Your task to perform on an android device: allow cookies in the chrome app Image 0: 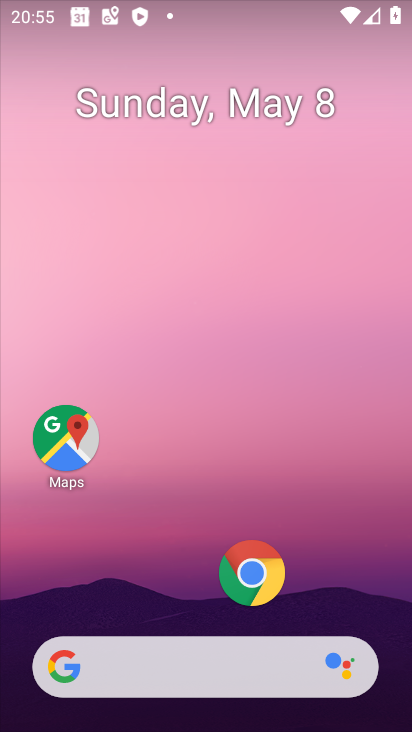
Step 0: click (248, 577)
Your task to perform on an android device: allow cookies in the chrome app Image 1: 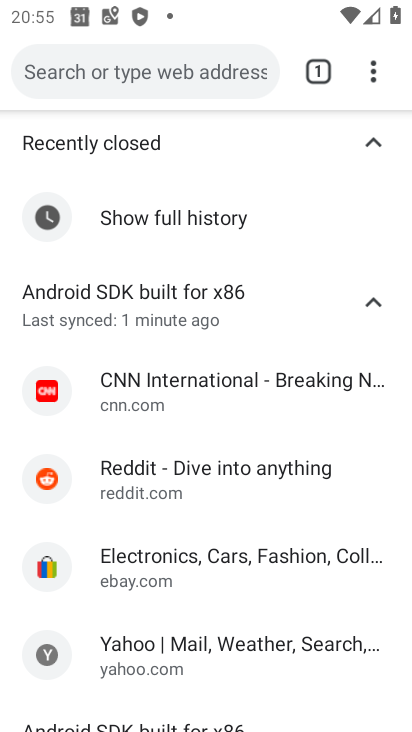
Step 1: click (374, 70)
Your task to perform on an android device: allow cookies in the chrome app Image 2: 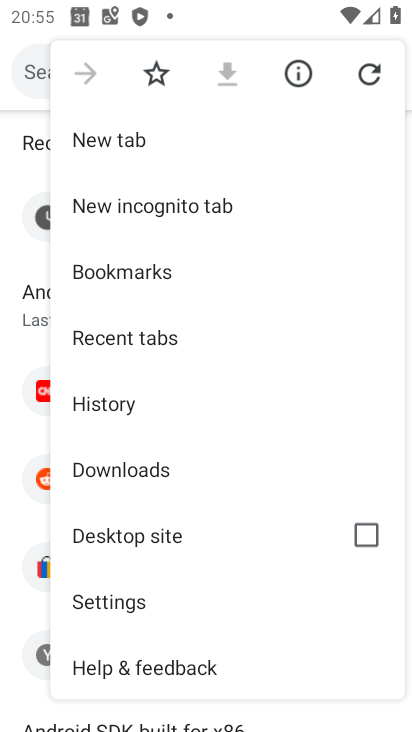
Step 2: click (139, 602)
Your task to perform on an android device: allow cookies in the chrome app Image 3: 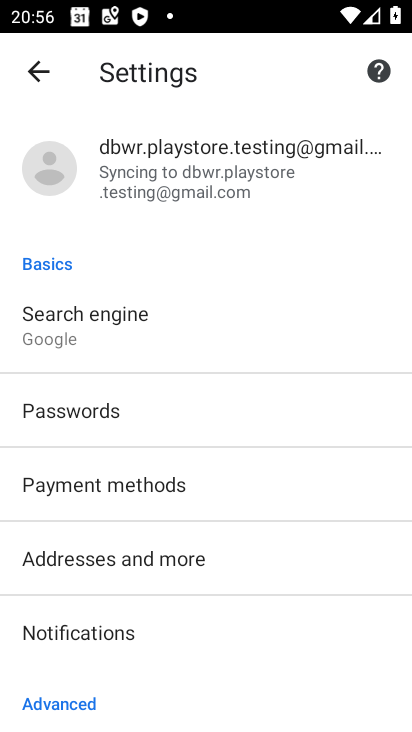
Step 3: drag from (146, 572) to (189, 153)
Your task to perform on an android device: allow cookies in the chrome app Image 4: 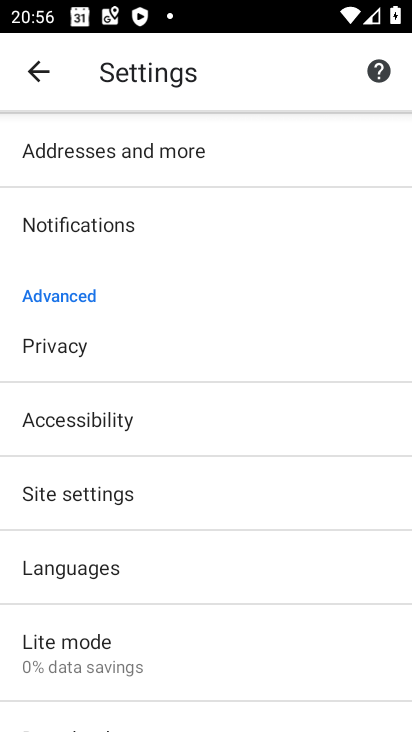
Step 4: drag from (88, 647) to (134, 244)
Your task to perform on an android device: allow cookies in the chrome app Image 5: 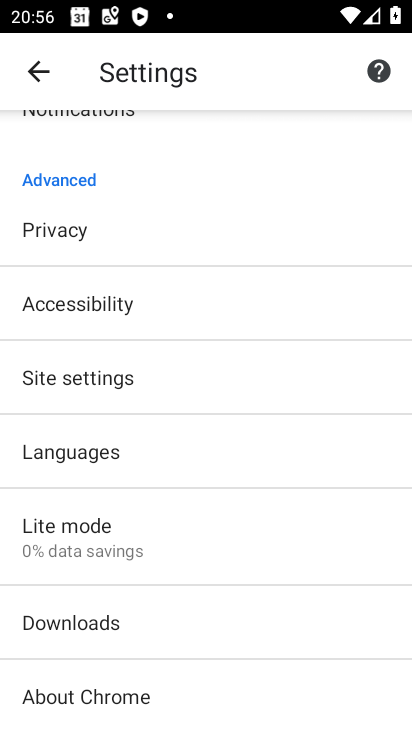
Step 5: click (106, 381)
Your task to perform on an android device: allow cookies in the chrome app Image 6: 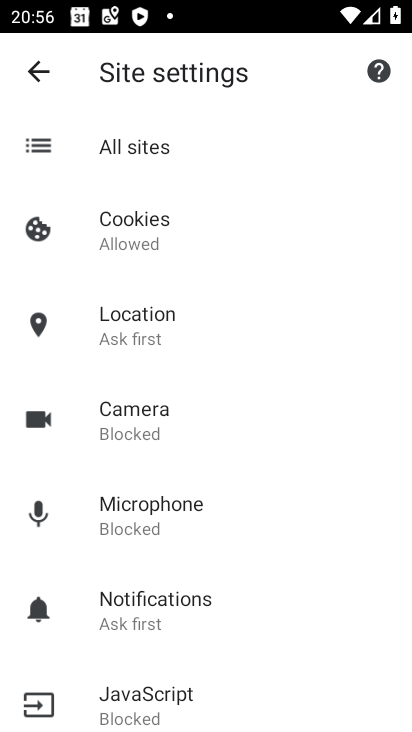
Step 6: click (138, 220)
Your task to perform on an android device: allow cookies in the chrome app Image 7: 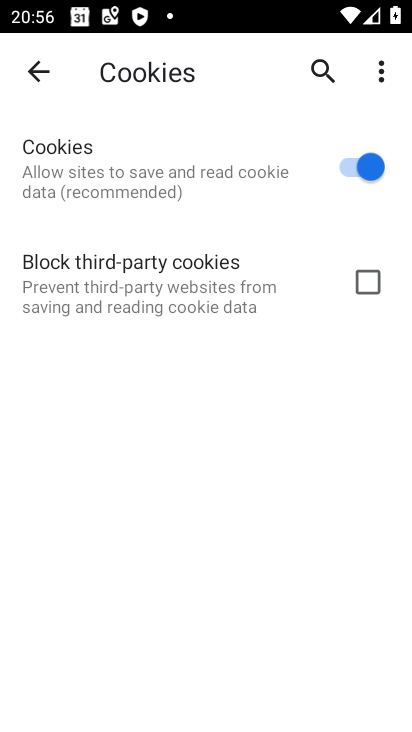
Step 7: task complete